Your task to perform on an android device: toggle sleep mode Image 0: 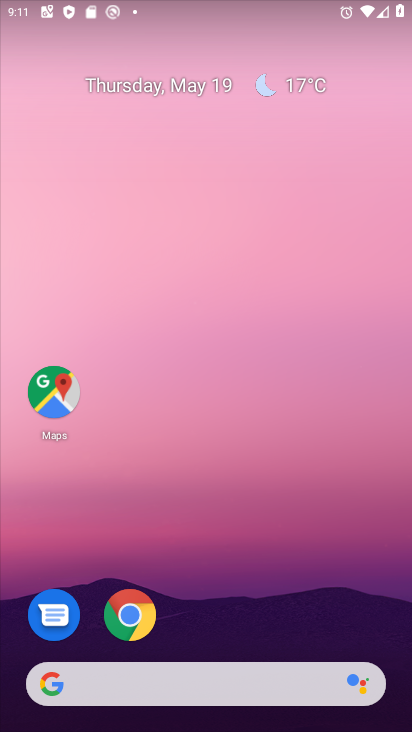
Step 0: drag from (268, 638) to (377, 54)
Your task to perform on an android device: toggle sleep mode Image 1: 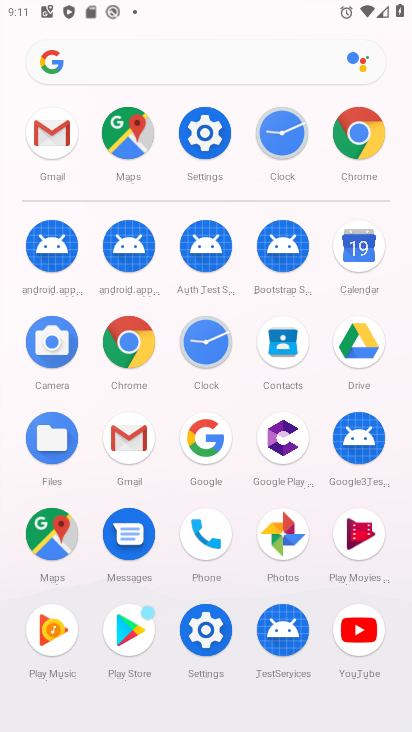
Step 1: click (201, 139)
Your task to perform on an android device: toggle sleep mode Image 2: 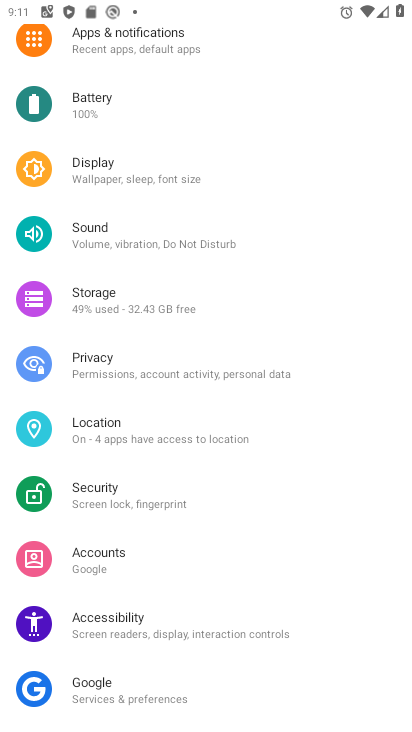
Step 2: click (181, 181)
Your task to perform on an android device: toggle sleep mode Image 3: 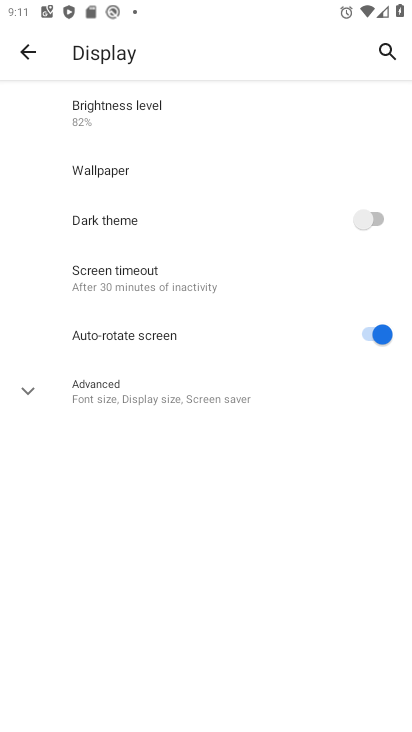
Step 3: click (112, 382)
Your task to perform on an android device: toggle sleep mode Image 4: 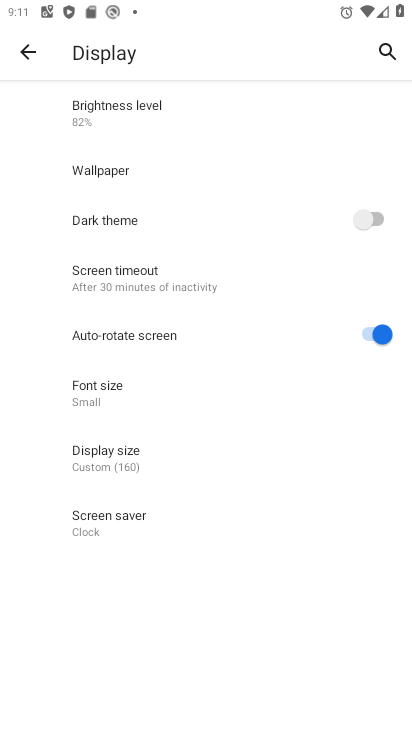
Step 4: click (112, 382)
Your task to perform on an android device: toggle sleep mode Image 5: 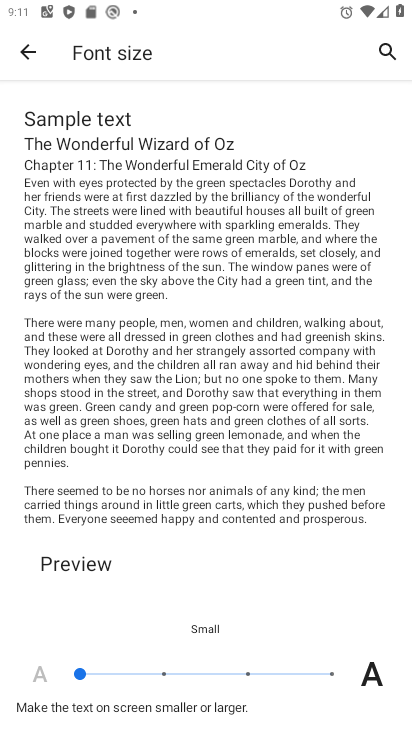
Step 5: drag from (263, 590) to (324, 310)
Your task to perform on an android device: toggle sleep mode Image 6: 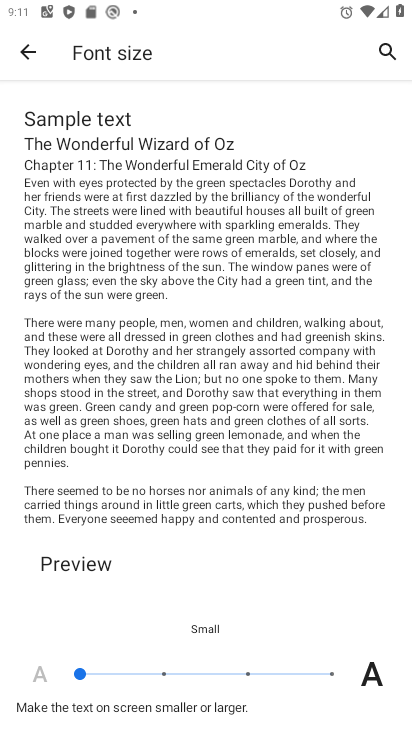
Step 6: drag from (271, 580) to (337, 295)
Your task to perform on an android device: toggle sleep mode Image 7: 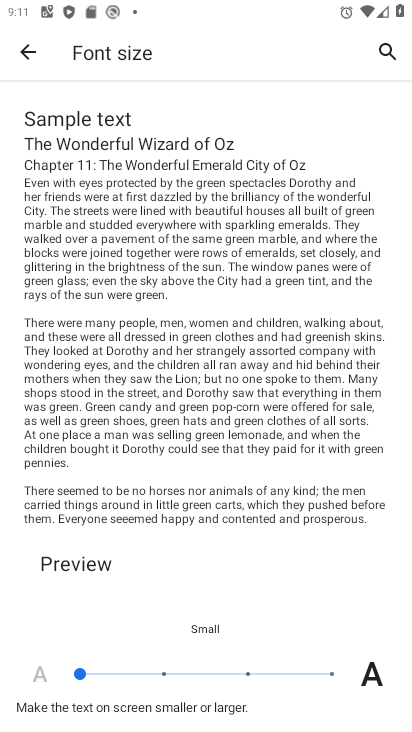
Step 7: click (28, 67)
Your task to perform on an android device: toggle sleep mode Image 8: 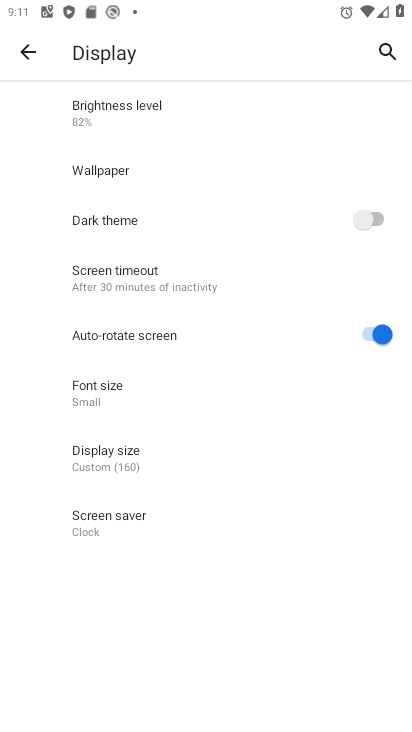
Step 8: task complete